Your task to perform on an android device: Open my contact list Image 0: 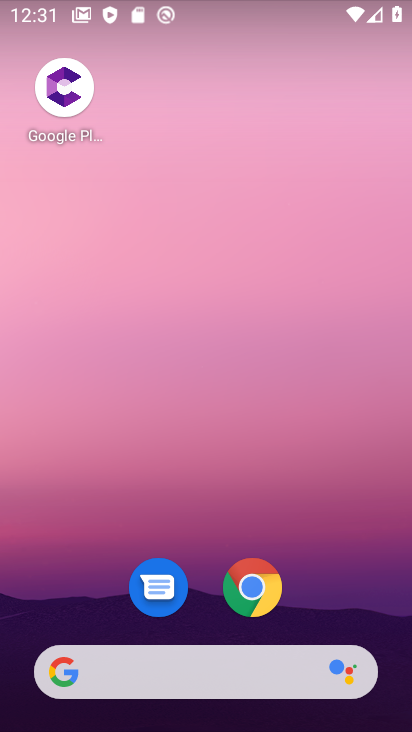
Step 0: click (275, 12)
Your task to perform on an android device: Open my contact list Image 1: 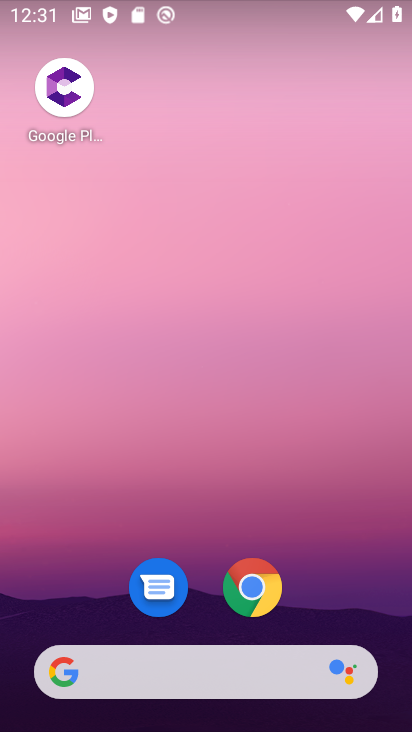
Step 1: drag from (304, 456) to (297, 47)
Your task to perform on an android device: Open my contact list Image 2: 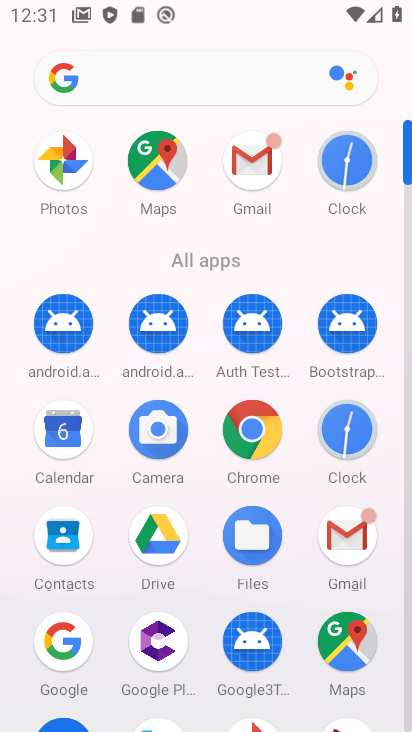
Step 2: drag from (286, 482) to (273, 272)
Your task to perform on an android device: Open my contact list Image 3: 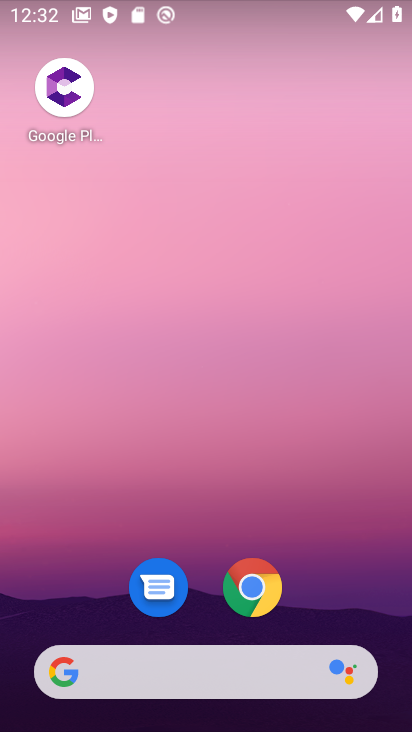
Step 3: drag from (366, 569) to (210, 104)
Your task to perform on an android device: Open my contact list Image 4: 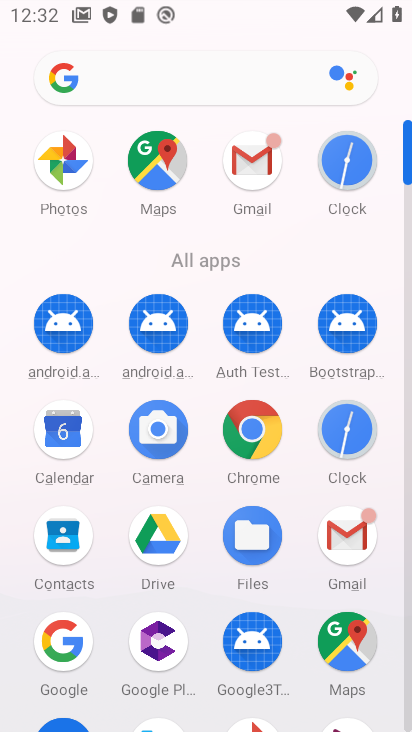
Step 4: drag from (294, 605) to (265, 211)
Your task to perform on an android device: Open my contact list Image 5: 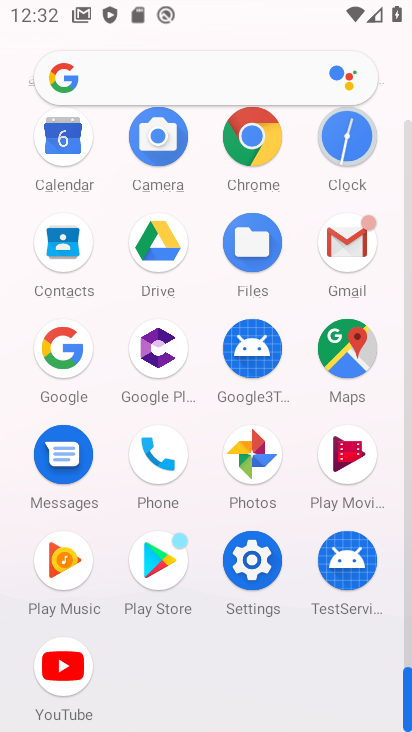
Step 5: click (65, 291)
Your task to perform on an android device: Open my contact list Image 6: 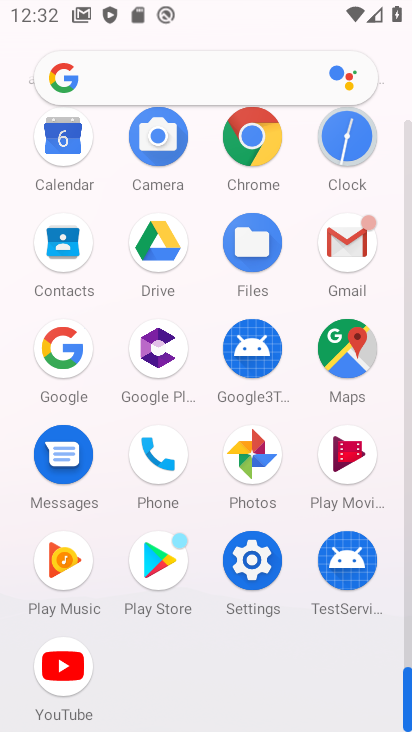
Step 6: click (51, 261)
Your task to perform on an android device: Open my contact list Image 7: 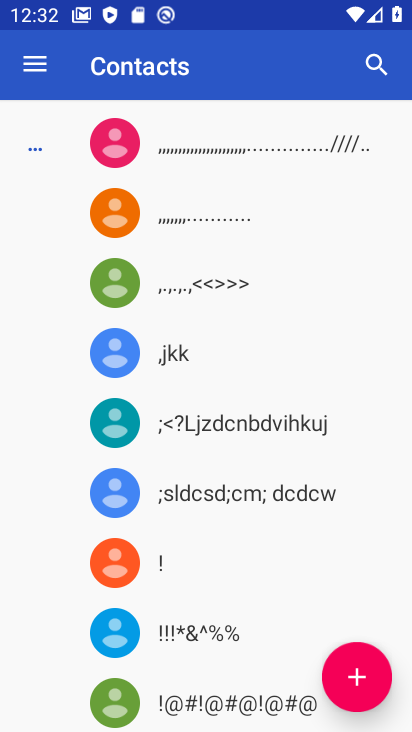
Step 7: task complete